Your task to perform on an android device: Open Chrome and go to the settings page Image 0: 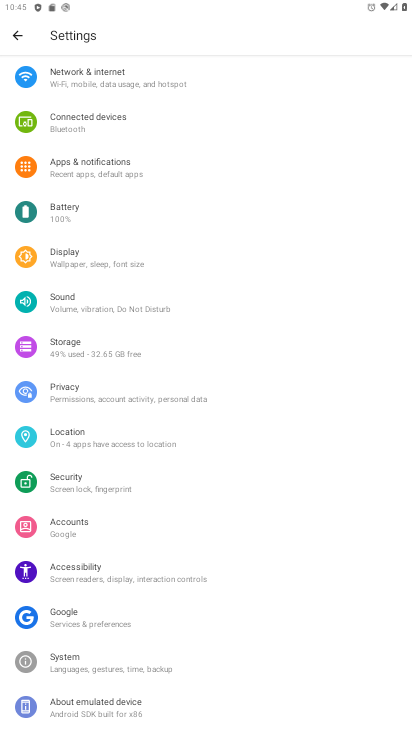
Step 0: press home button
Your task to perform on an android device: Open Chrome and go to the settings page Image 1: 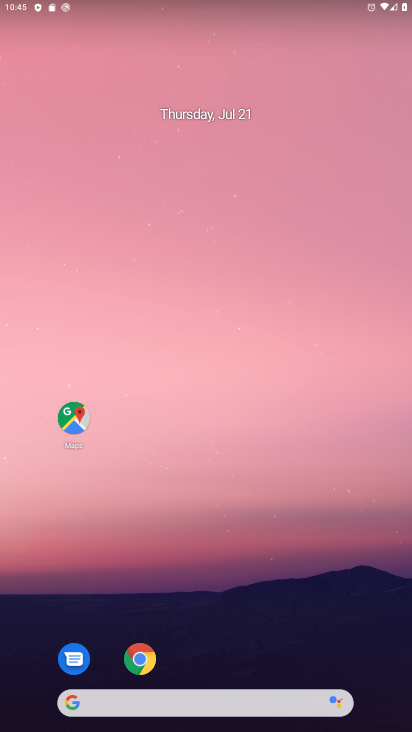
Step 1: click (141, 675)
Your task to perform on an android device: Open Chrome and go to the settings page Image 2: 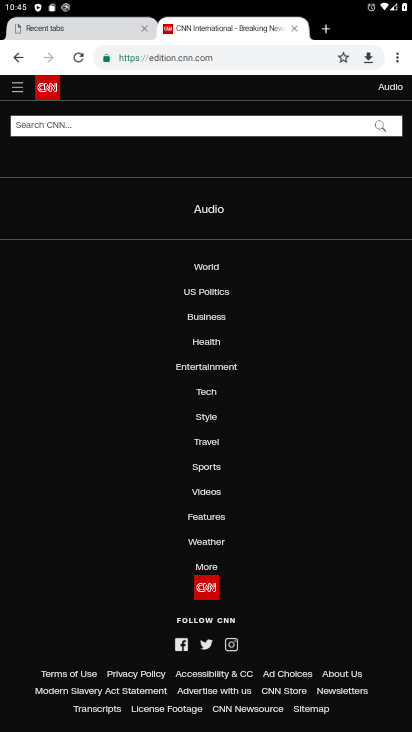
Step 2: click (395, 53)
Your task to perform on an android device: Open Chrome and go to the settings page Image 3: 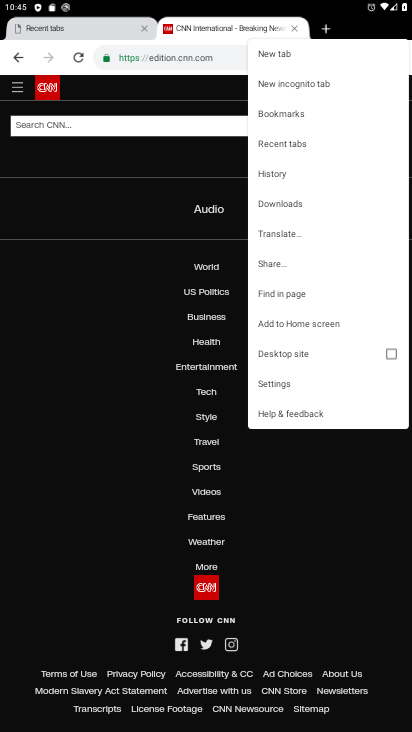
Step 3: click (304, 383)
Your task to perform on an android device: Open Chrome and go to the settings page Image 4: 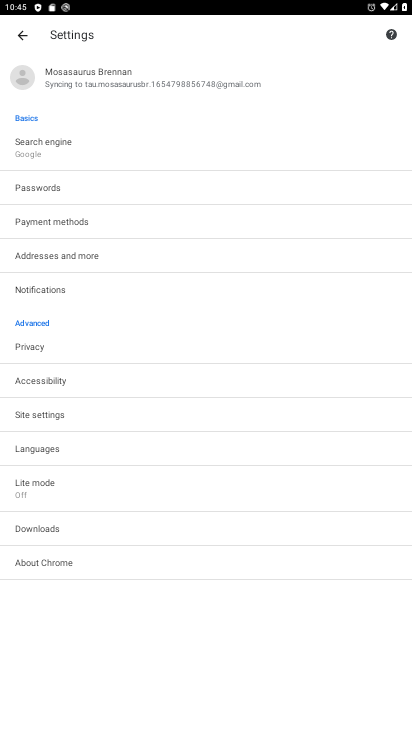
Step 4: task complete